Your task to perform on an android device: Clear all items from cart on amazon.com. Add bose soundsport free to the cart on amazon.com, then select checkout. Image 0: 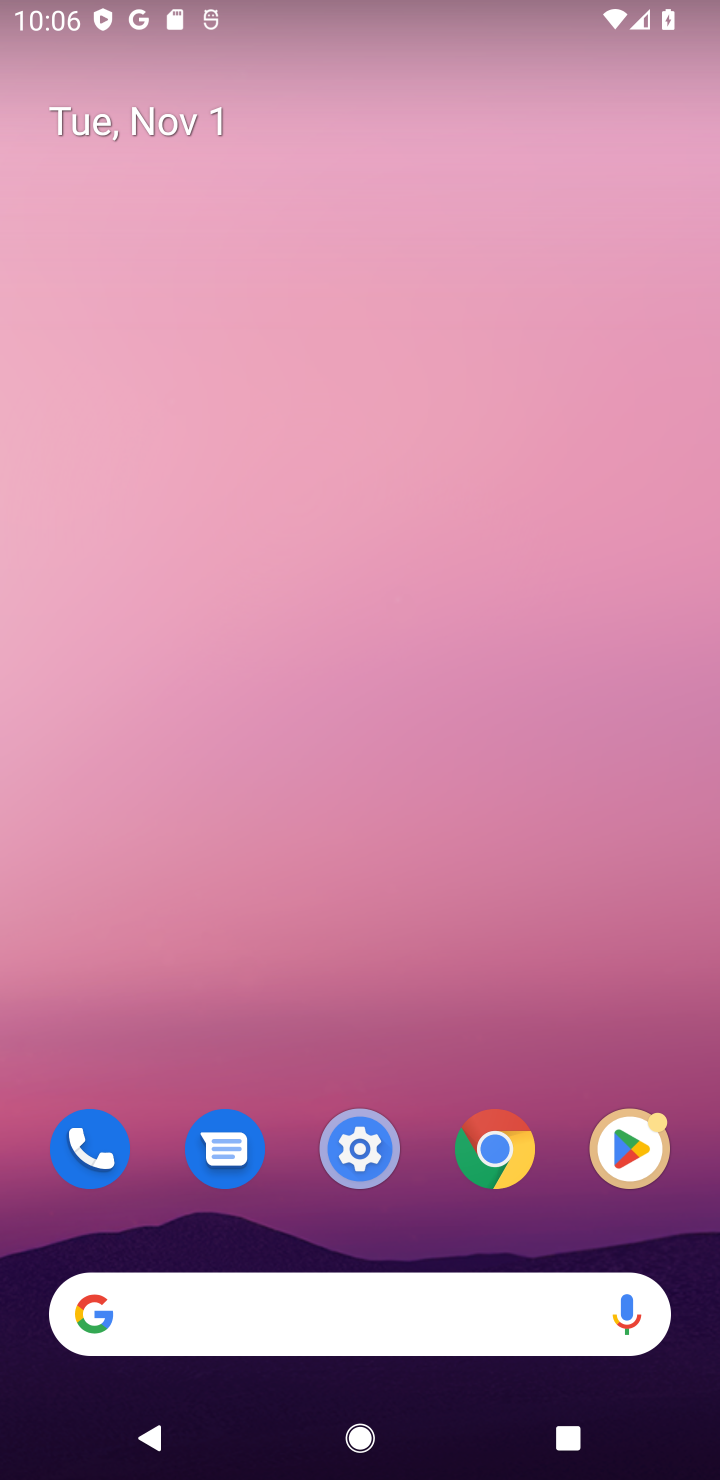
Step 0: click (169, 1316)
Your task to perform on an android device: Clear all items from cart on amazon.com. Add bose soundsport free to the cart on amazon.com, then select checkout. Image 1: 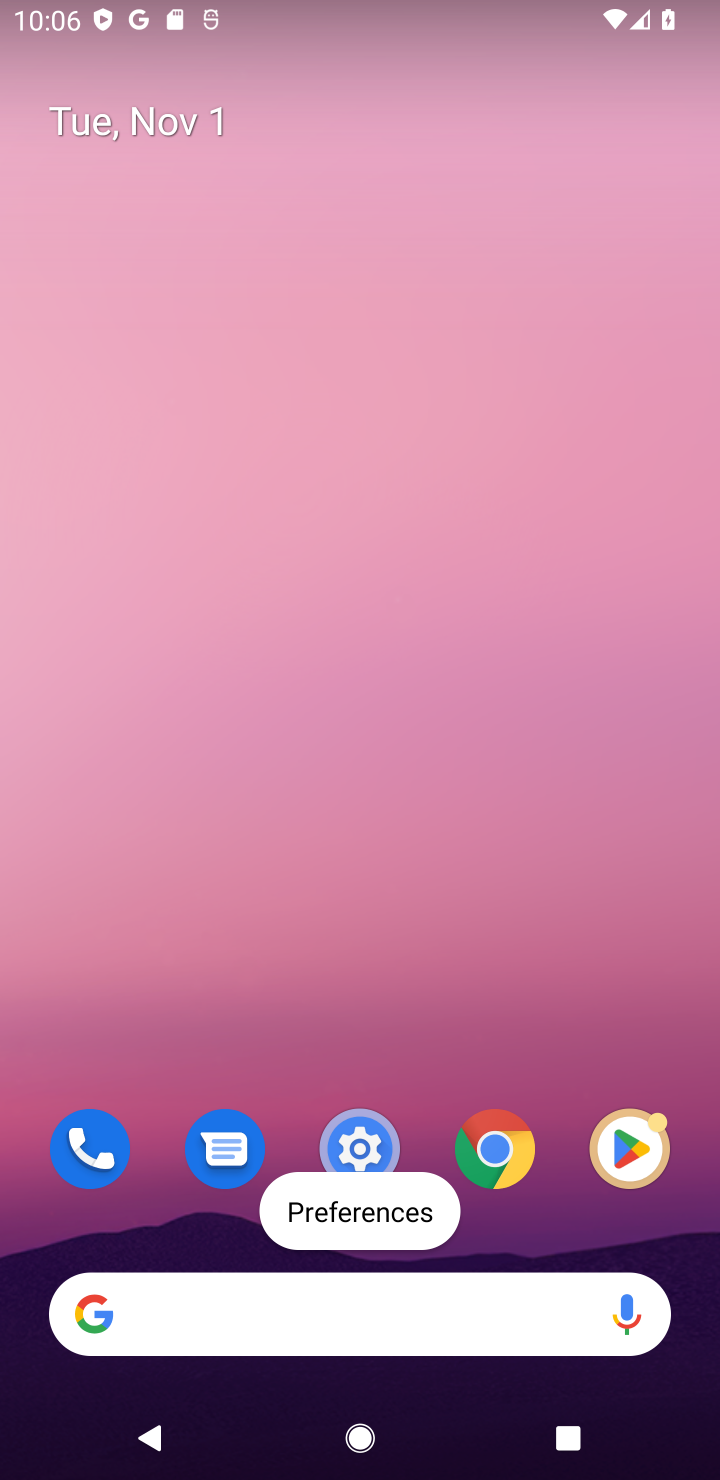
Step 1: click (161, 1310)
Your task to perform on an android device: Clear all items from cart on amazon.com. Add bose soundsport free to the cart on amazon.com, then select checkout. Image 2: 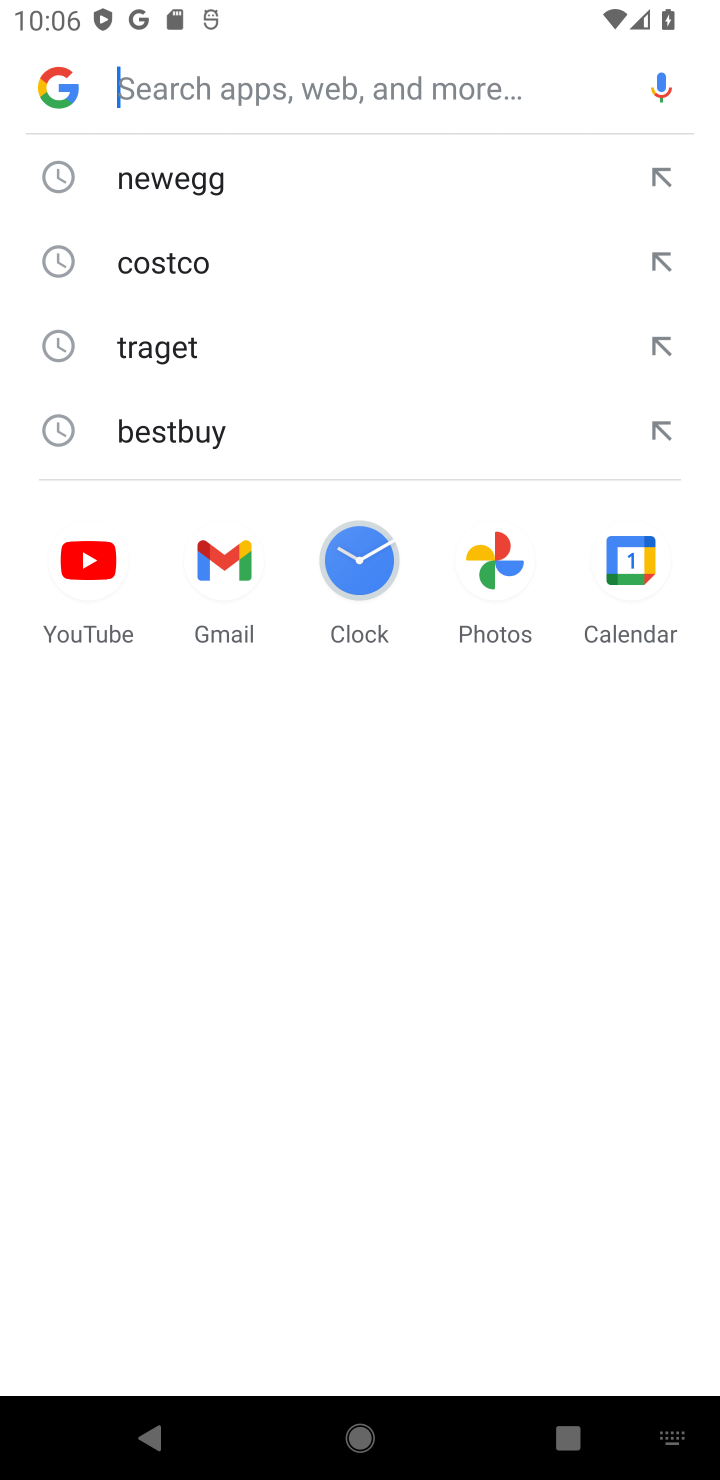
Step 2: press enter
Your task to perform on an android device: Clear all items from cart on amazon.com. Add bose soundsport free to the cart on amazon.com, then select checkout. Image 3: 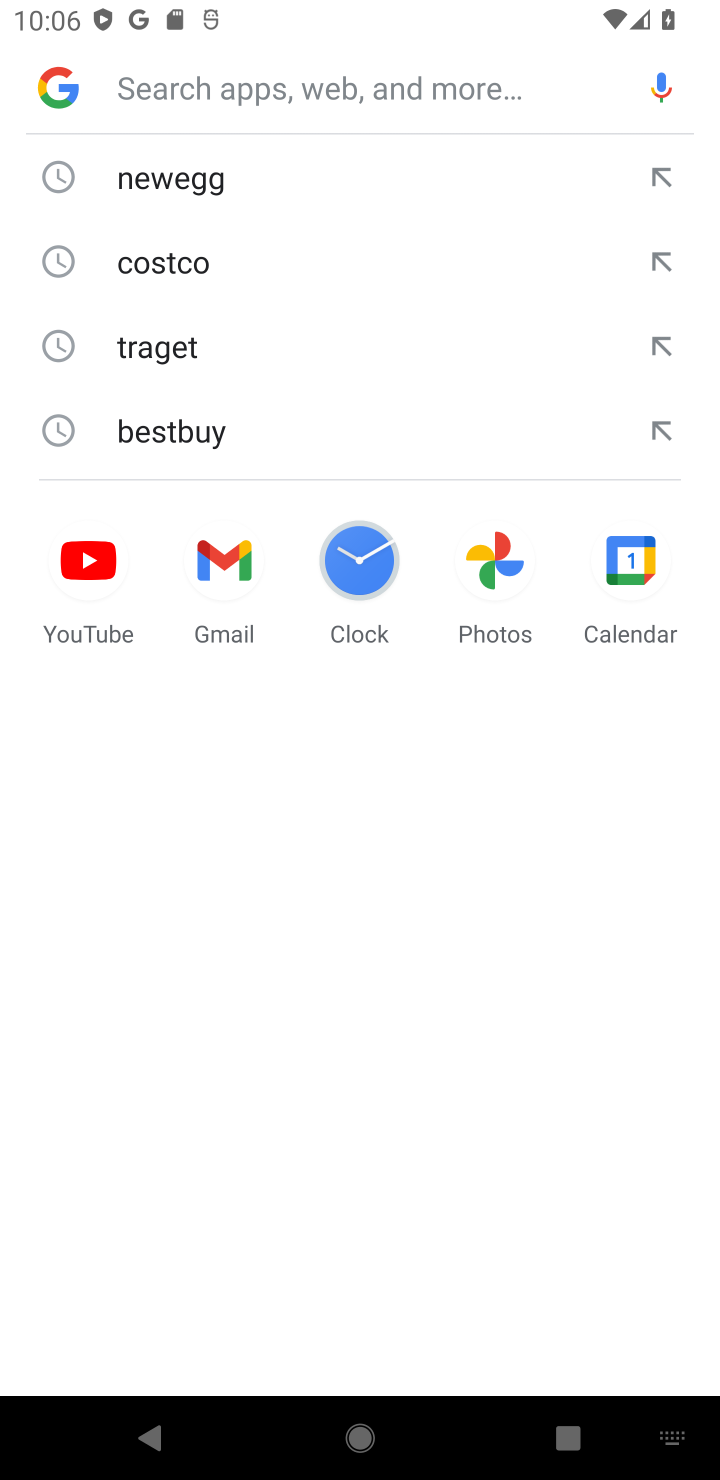
Step 3: type "amazon.com"
Your task to perform on an android device: Clear all items from cart on amazon.com. Add bose soundsport free to the cart on amazon.com, then select checkout. Image 4: 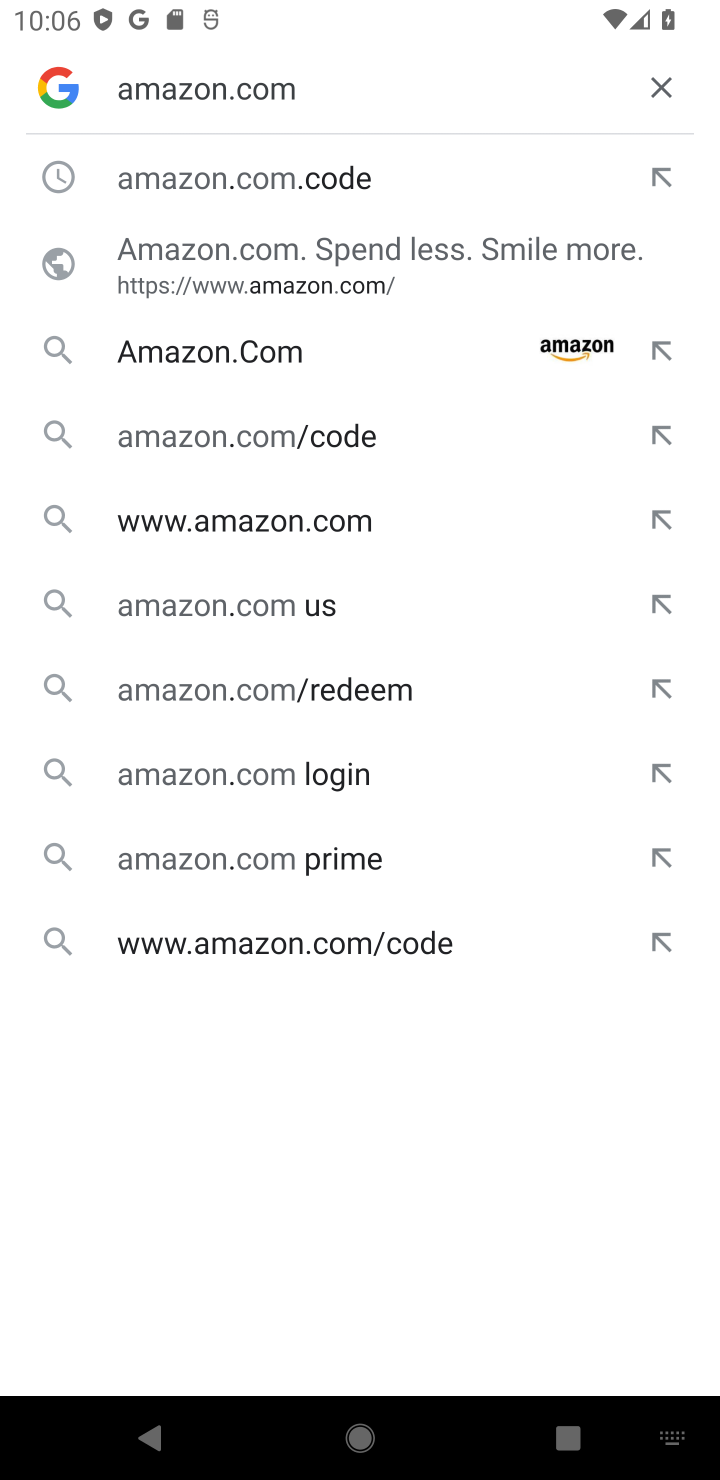
Step 4: press enter
Your task to perform on an android device: Clear all items from cart on amazon.com. Add bose soundsport free to the cart on amazon.com, then select checkout. Image 5: 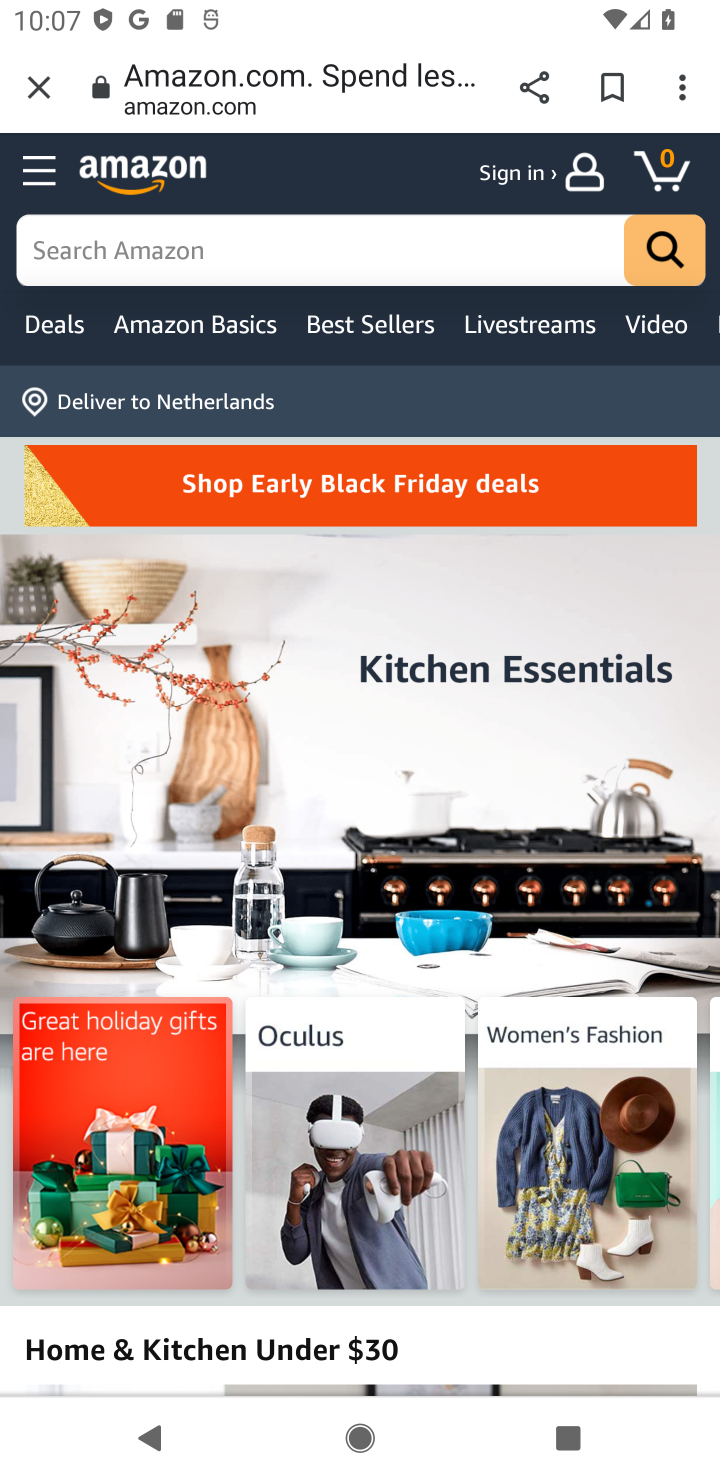
Step 5: click (305, 247)
Your task to perform on an android device: Clear all items from cart on amazon.com. Add bose soundsport free to the cart on amazon.com, then select checkout. Image 6: 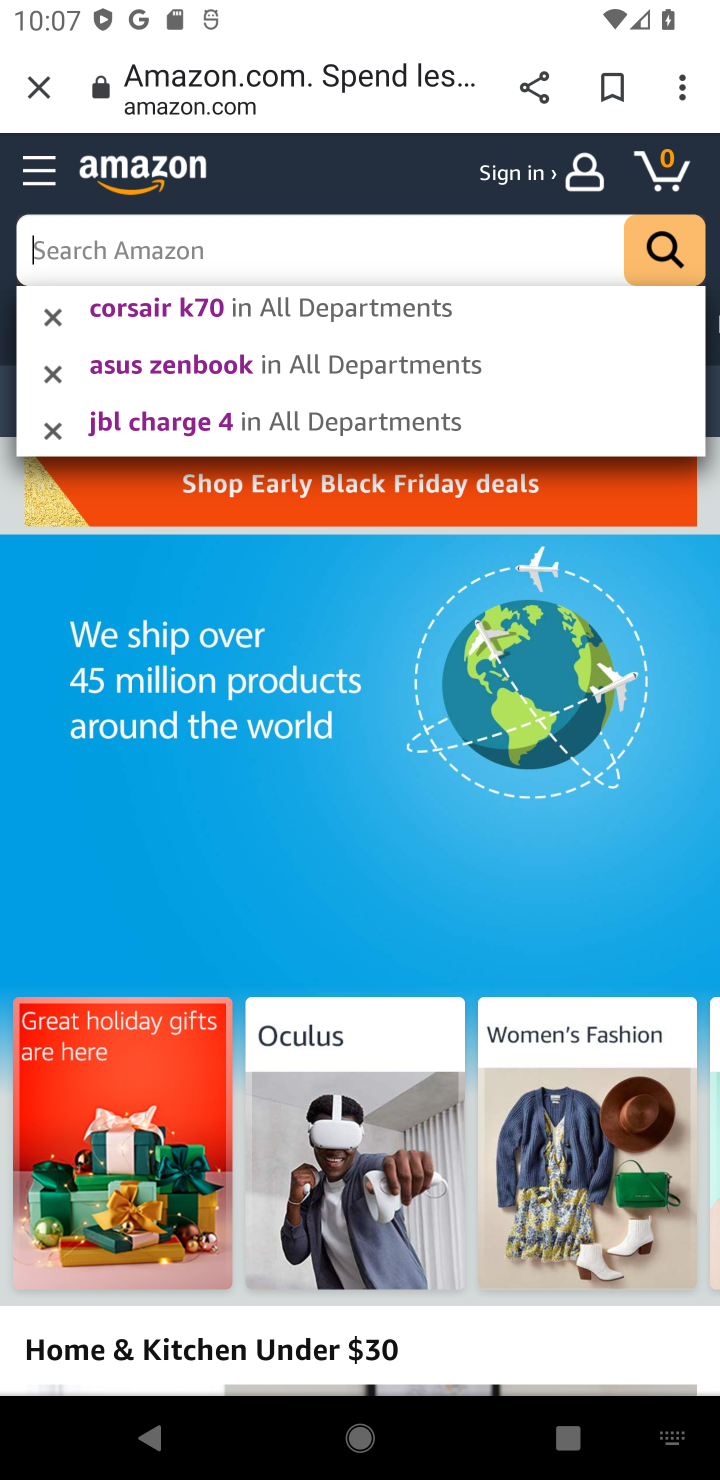
Step 6: type "bose soundsport free"
Your task to perform on an android device: Clear all items from cart on amazon.com. Add bose soundsport free to the cart on amazon.com, then select checkout. Image 7: 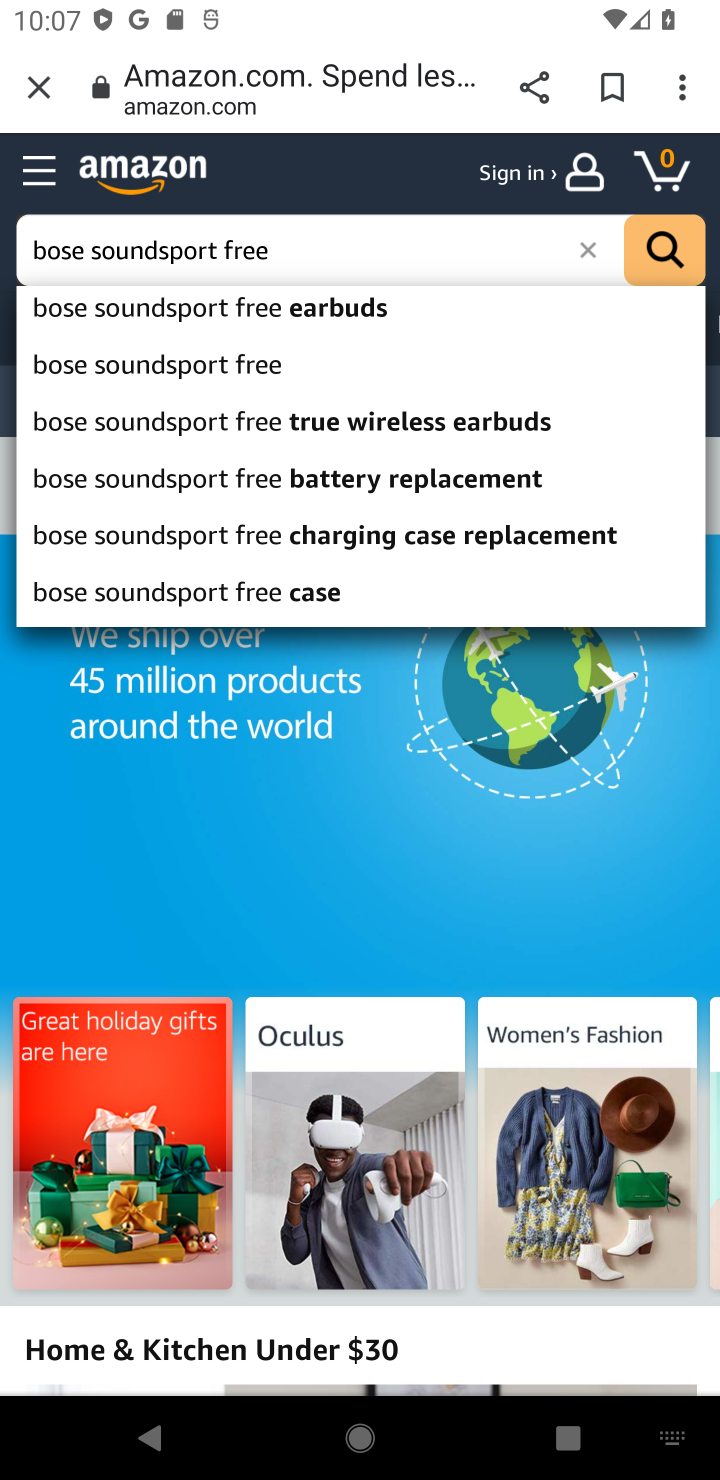
Step 7: click (678, 249)
Your task to perform on an android device: Clear all items from cart on amazon.com. Add bose soundsport free to the cart on amazon.com, then select checkout. Image 8: 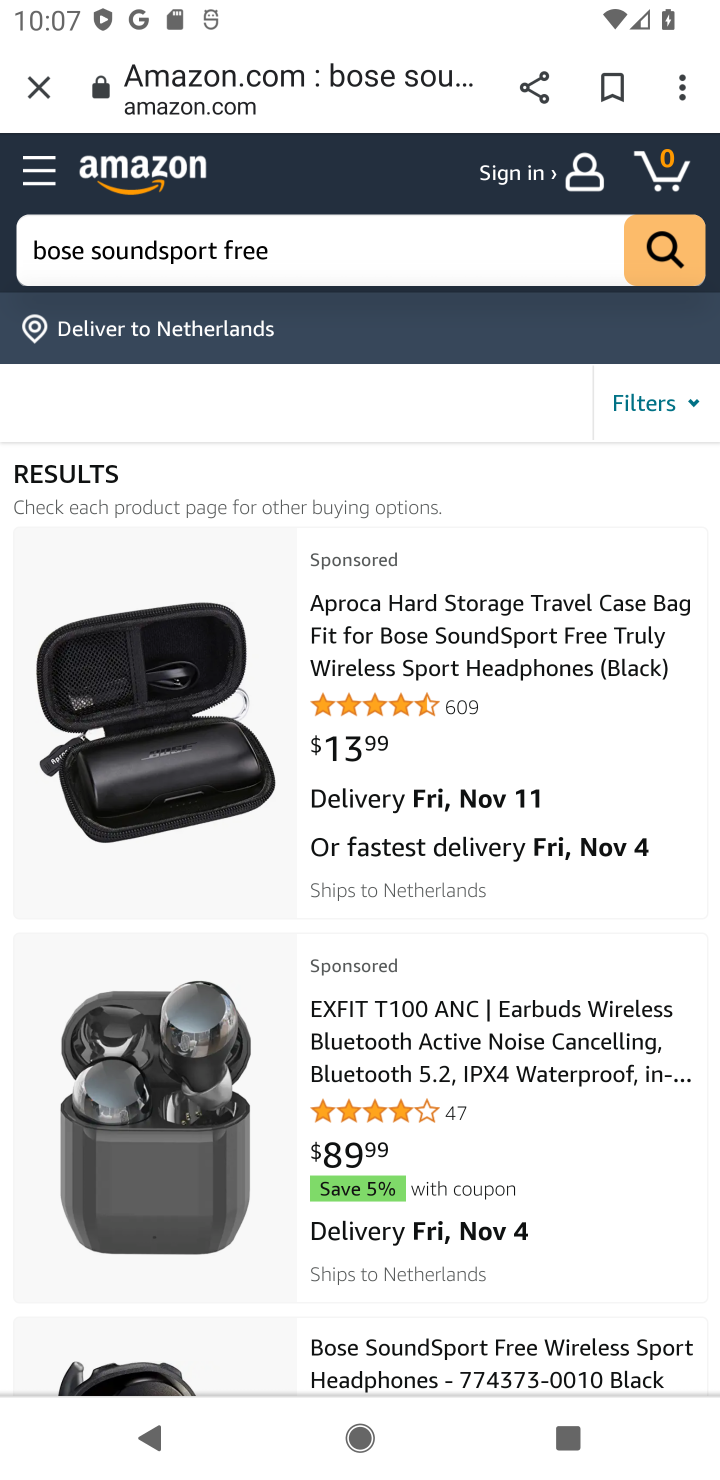
Step 8: drag from (527, 1147) to (517, 718)
Your task to perform on an android device: Clear all items from cart on amazon.com. Add bose soundsport free to the cart on amazon.com, then select checkout. Image 9: 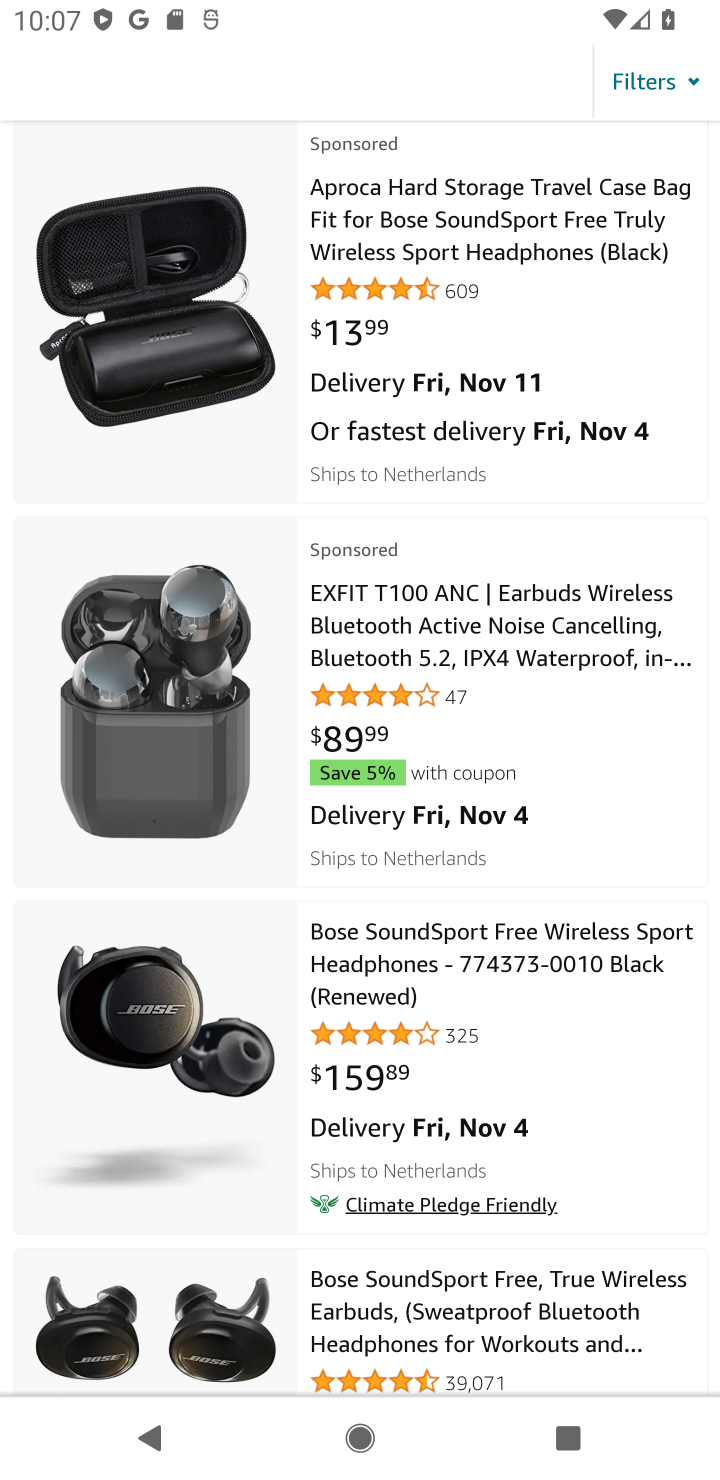
Step 9: click (452, 960)
Your task to perform on an android device: Clear all items from cart on amazon.com. Add bose soundsport free to the cart on amazon.com, then select checkout. Image 10: 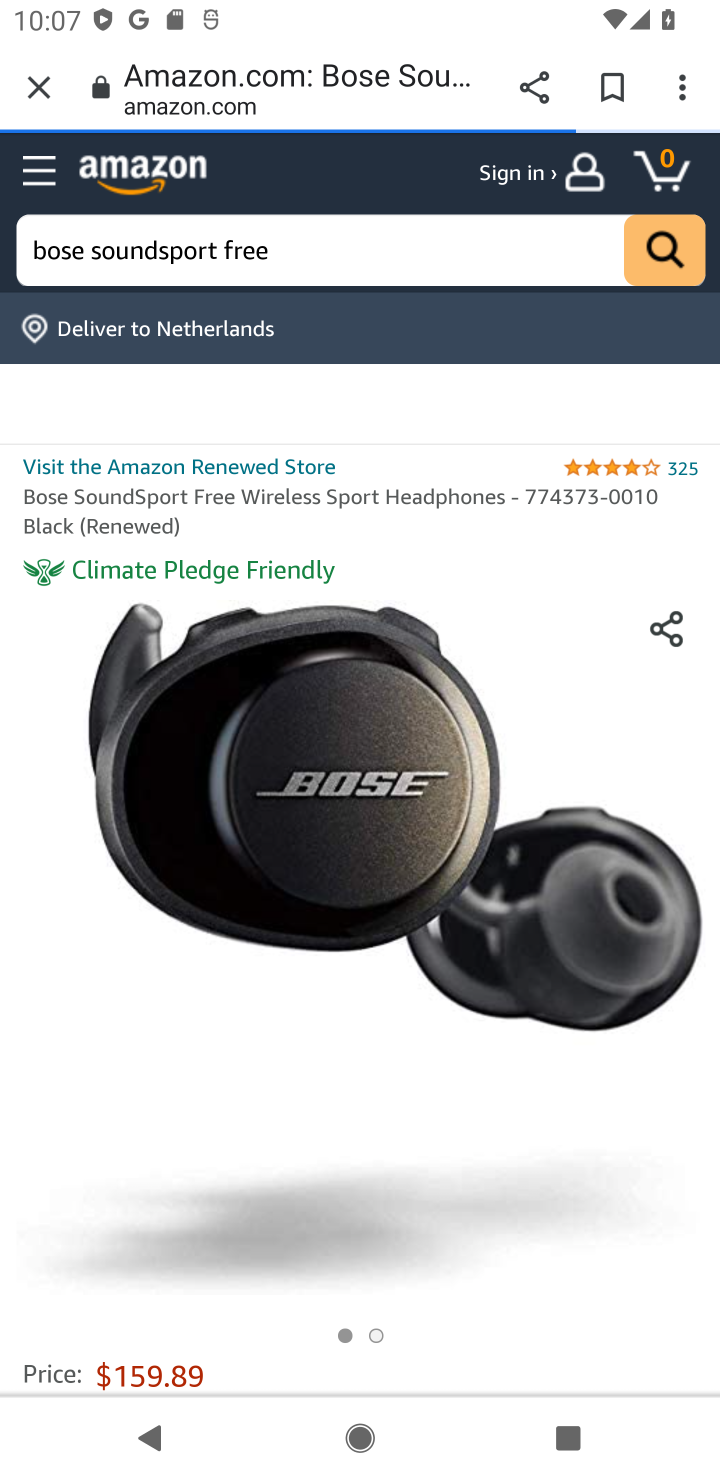
Step 10: drag from (431, 1208) to (426, 396)
Your task to perform on an android device: Clear all items from cart on amazon.com. Add bose soundsport free to the cart on amazon.com, then select checkout. Image 11: 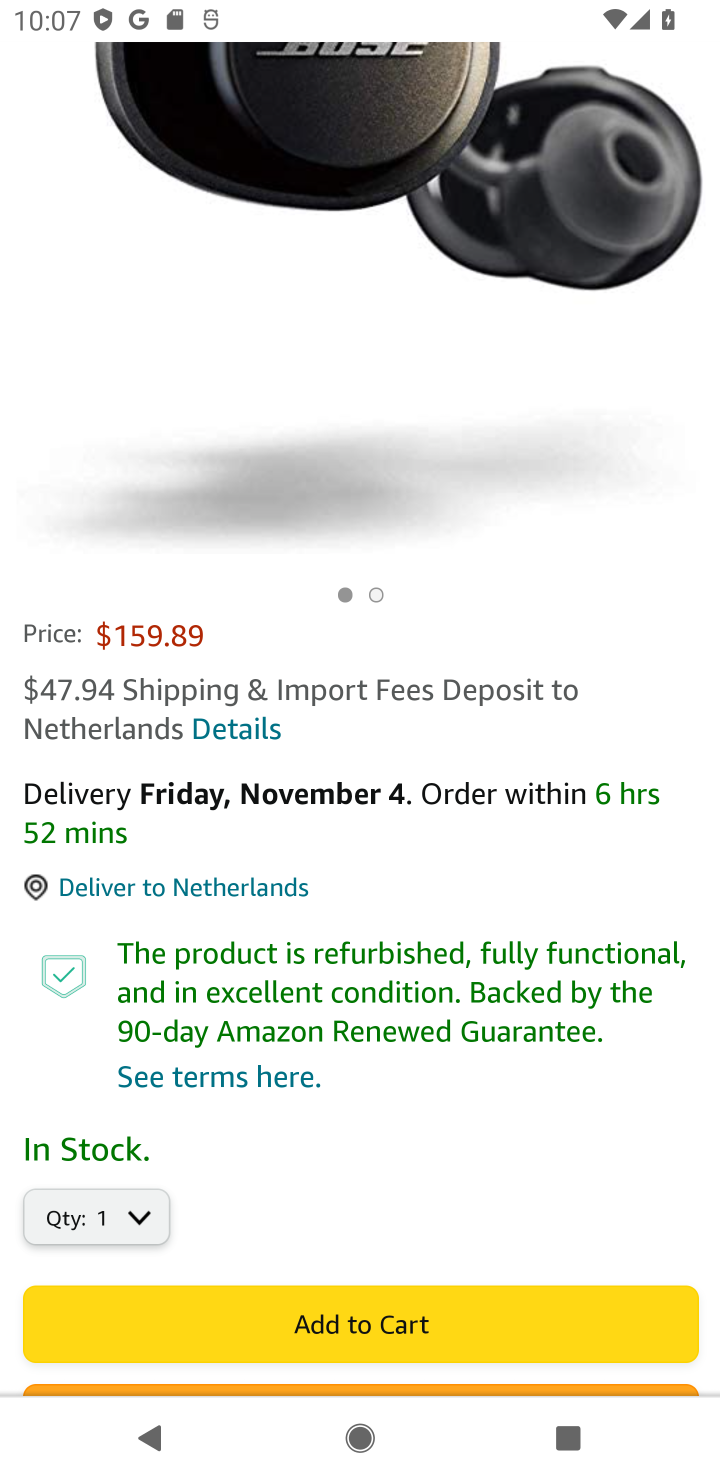
Step 11: click (399, 1336)
Your task to perform on an android device: Clear all items from cart on amazon.com. Add bose soundsport free to the cart on amazon.com, then select checkout. Image 12: 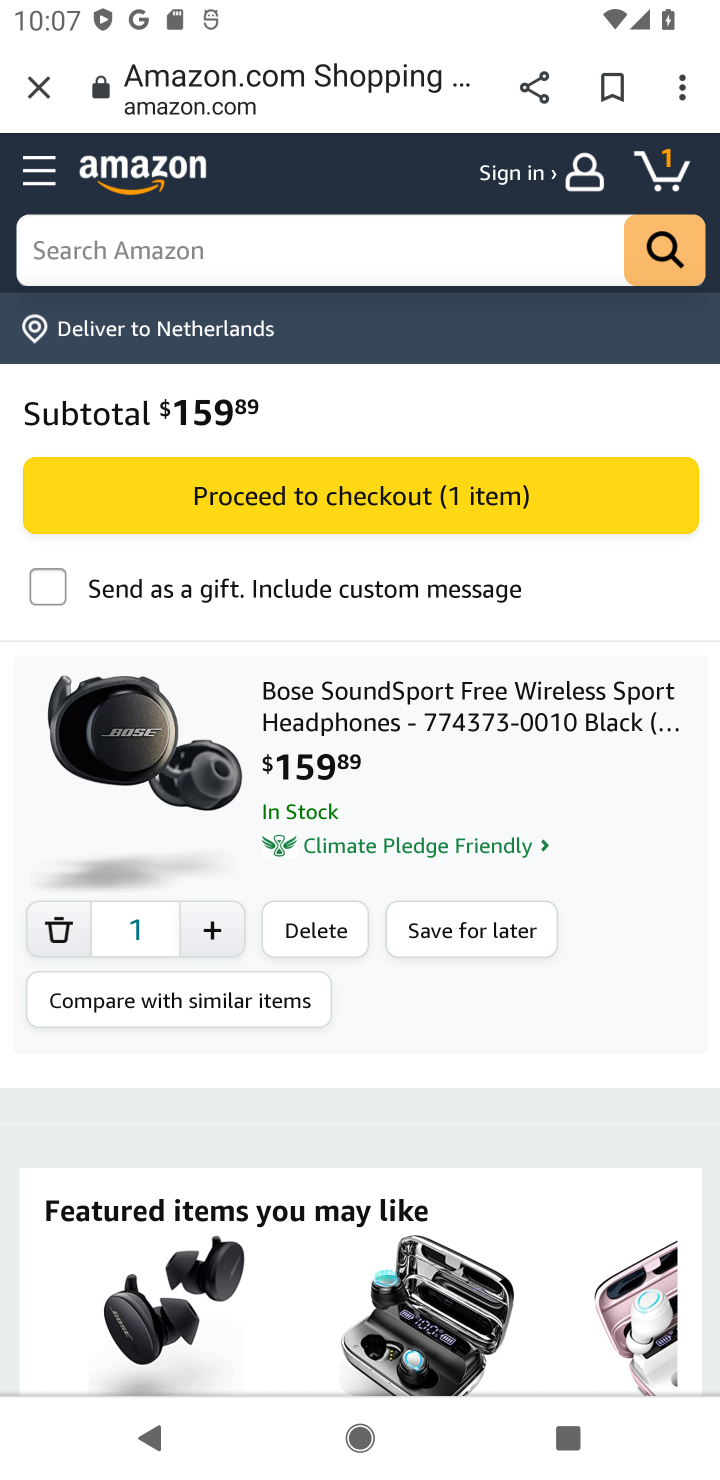
Step 12: click (358, 491)
Your task to perform on an android device: Clear all items from cart on amazon.com. Add bose soundsport free to the cart on amazon.com, then select checkout. Image 13: 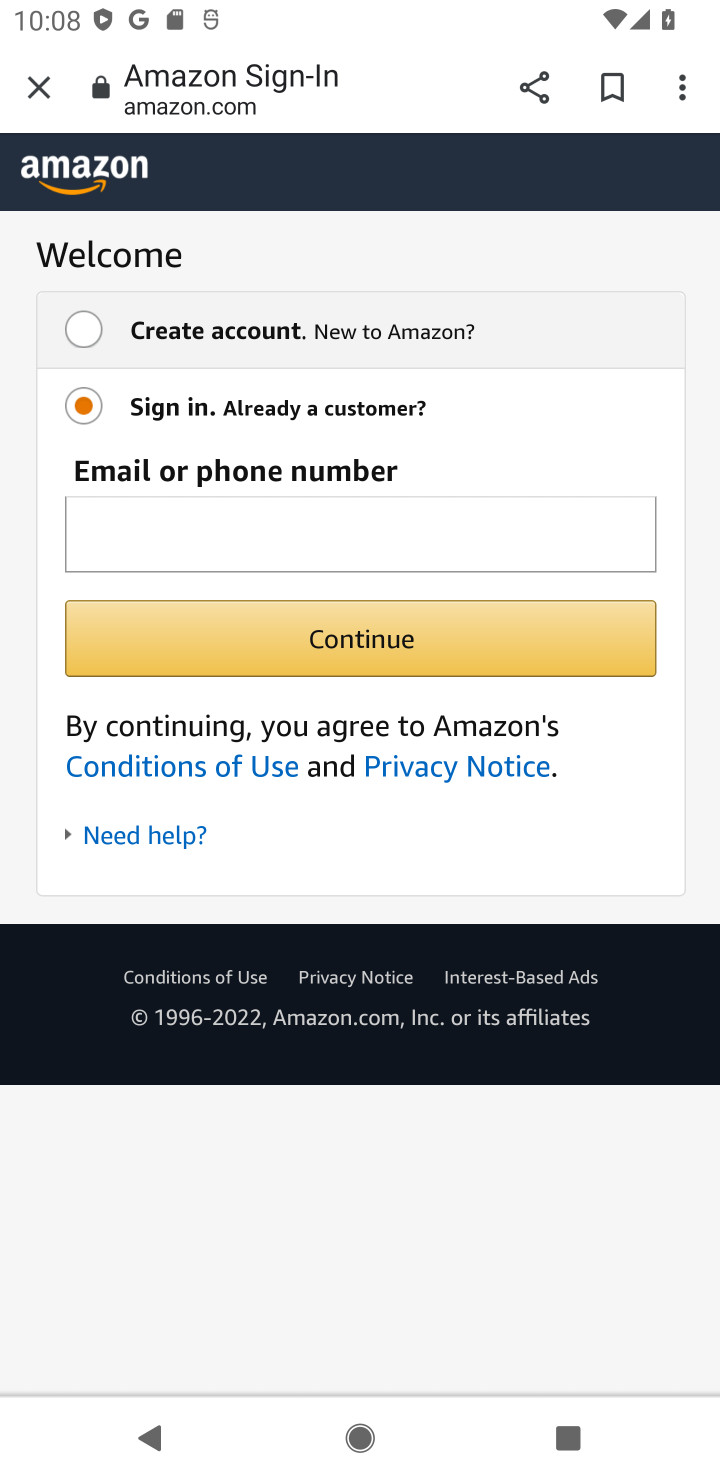
Step 13: task complete